Your task to perform on an android device: What's on my calendar tomorrow? Image 0: 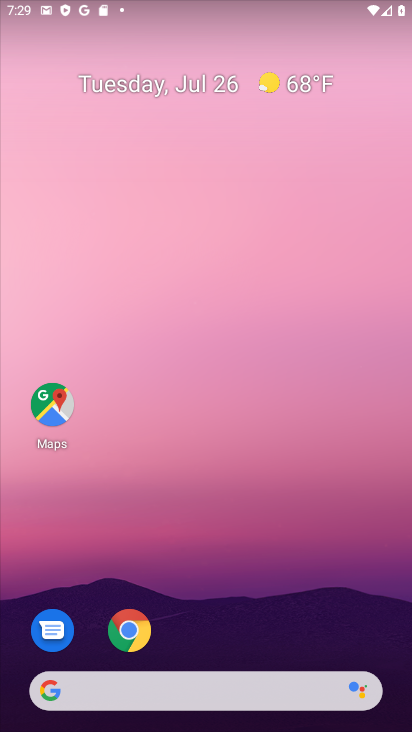
Step 0: press home button
Your task to perform on an android device: What's on my calendar tomorrow? Image 1: 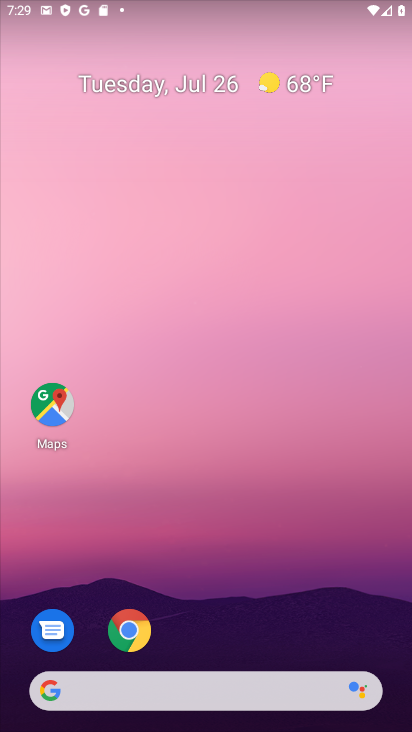
Step 1: drag from (334, 616) to (350, 164)
Your task to perform on an android device: What's on my calendar tomorrow? Image 2: 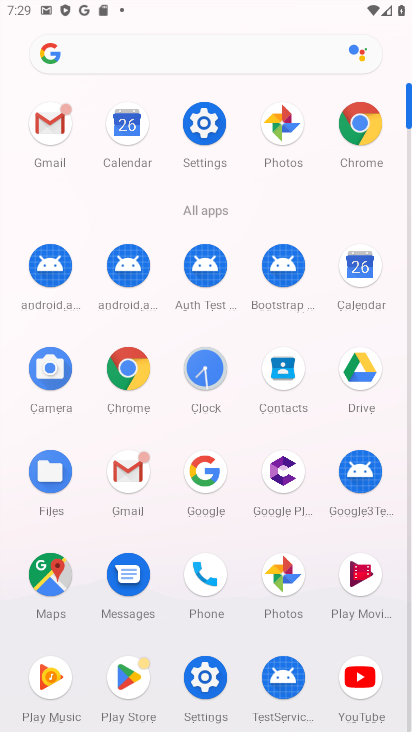
Step 2: click (362, 265)
Your task to perform on an android device: What's on my calendar tomorrow? Image 3: 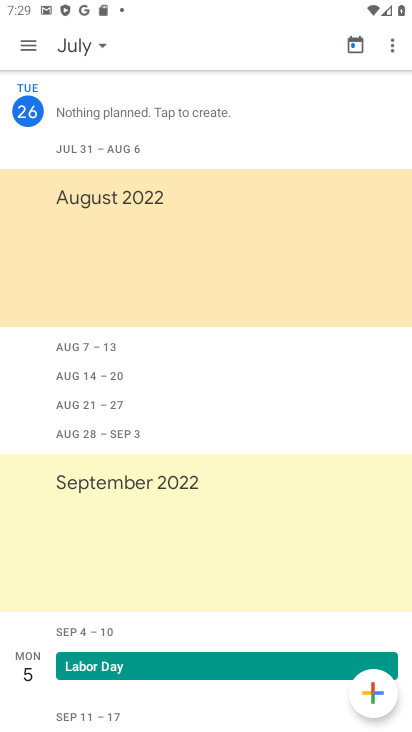
Step 3: click (96, 40)
Your task to perform on an android device: What's on my calendar tomorrow? Image 4: 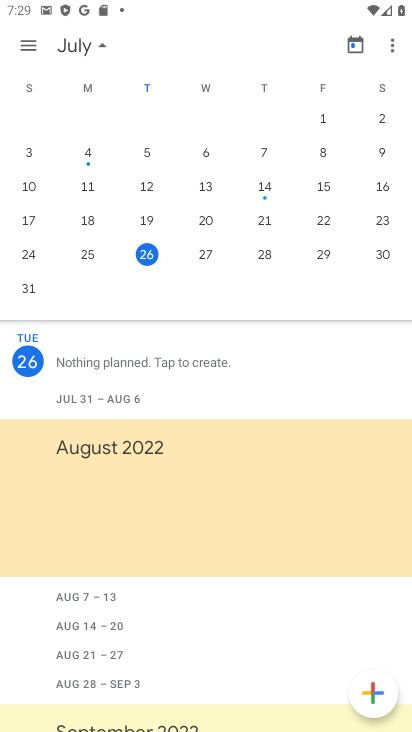
Step 4: click (270, 256)
Your task to perform on an android device: What's on my calendar tomorrow? Image 5: 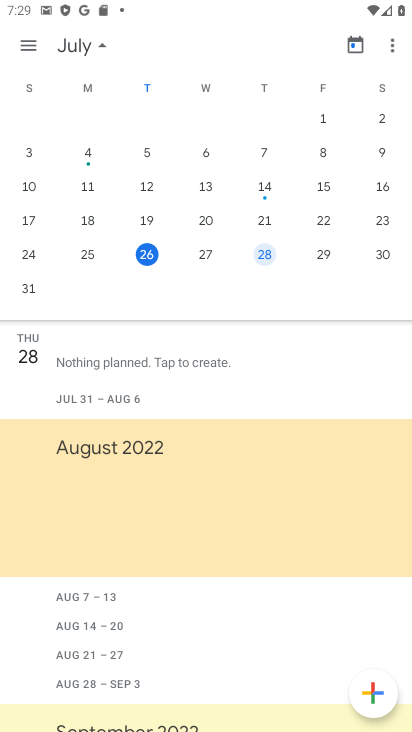
Step 5: task complete